Your task to perform on an android device: What's the weather? Image 0: 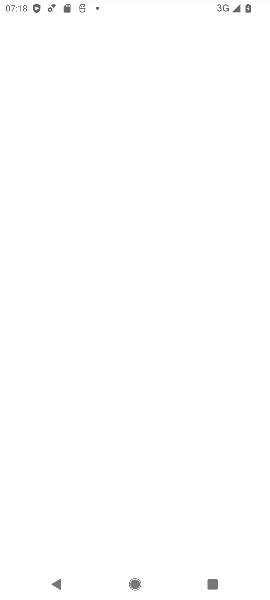
Step 0: press home button
Your task to perform on an android device: What's the weather? Image 1: 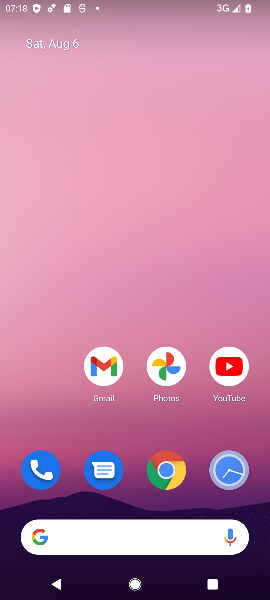
Step 1: drag from (116, 410) to (133, 185)
Your task to perform on an android device: What's the weather? Image 2: 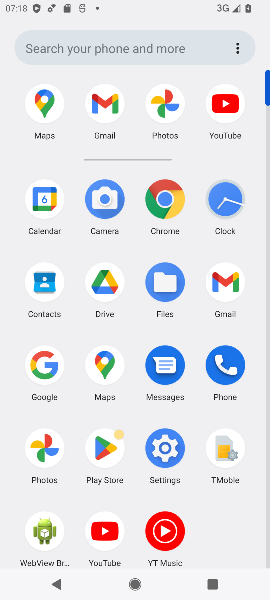
Step 2: click (173, 205)
Your task to perform on an android device: What's the weather? Image 3: 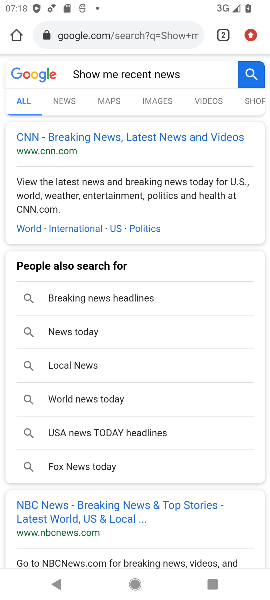
Step 3: click (162, 35)
Your task to perform on an android device: What's the weather? Image 4: 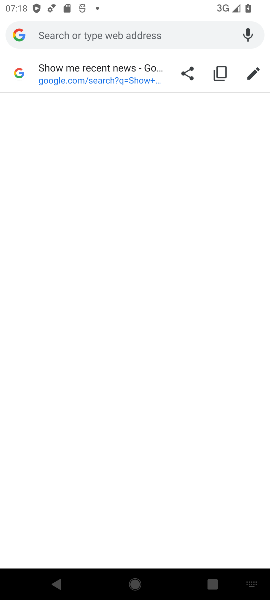
Step 4: type "What's the weather?"
Your task to perform on an android device: What's the weather? Image 5: 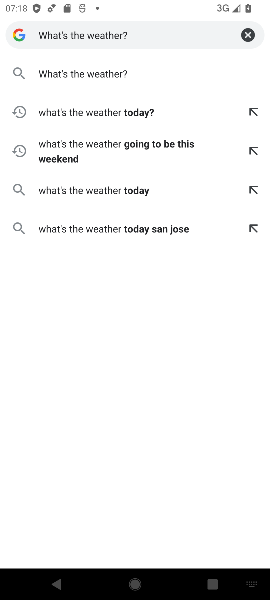
Step 5: click (134, 73)
Your task to perform on an android device: What's the weather? Image 6: 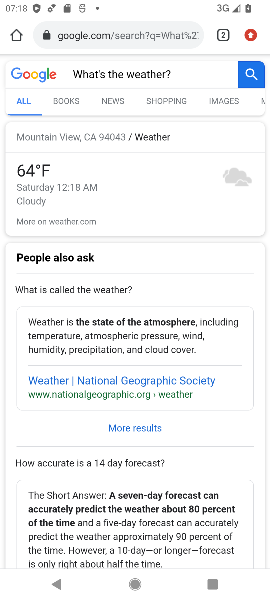
Step 6: task complete